Your task to perform on an android device: turn on translation in the chrome app Image 0: 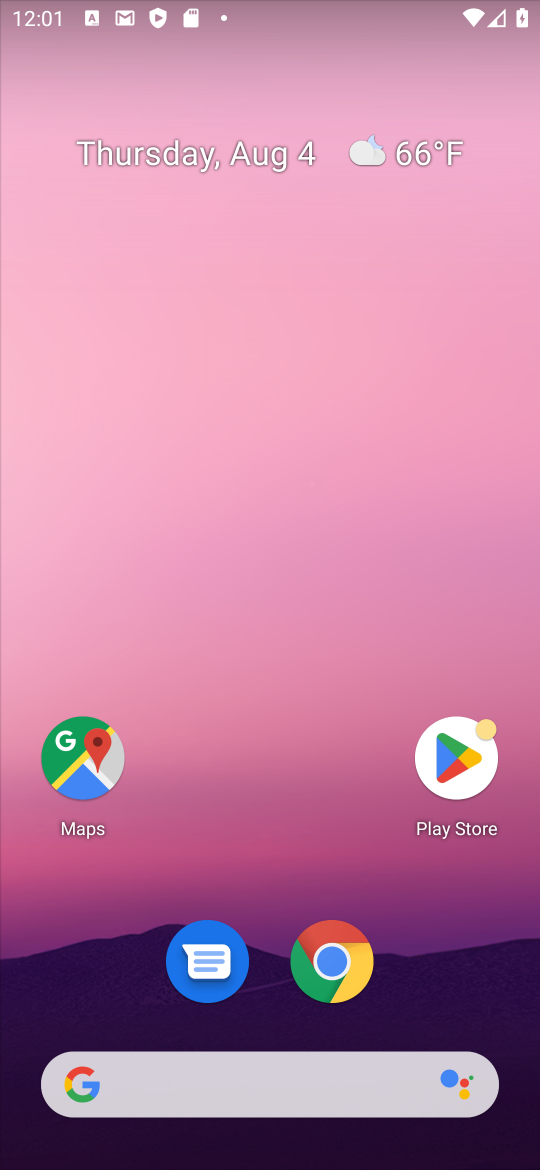
Step 0: click (337, 952)
Your task to perform on an android device: turn on translation in the chrome app Image 1: 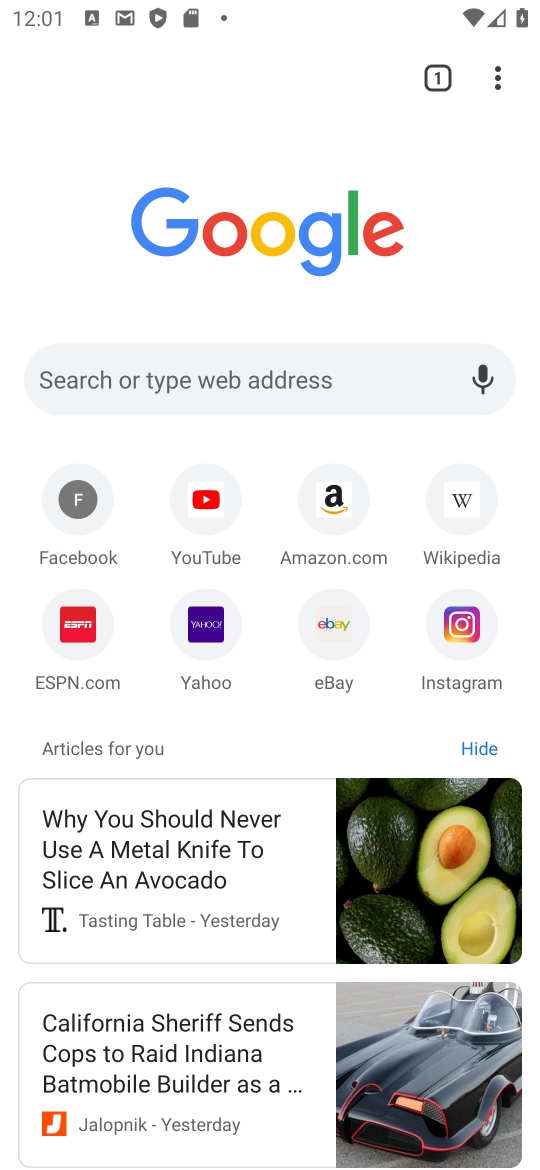
Step 1: click (498, 84)
Your task to perform on an android device: turn on translation in the chrome app Image 2: 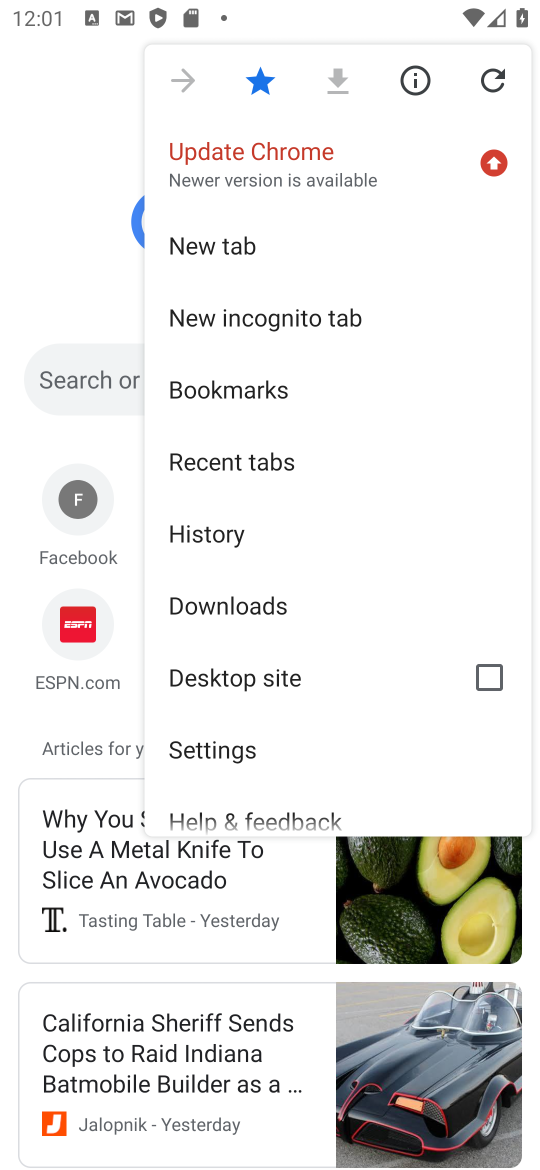
Step 2: click (240, 736)
Your task to perform on an android device: turn on translation in the chrome app Image 3: 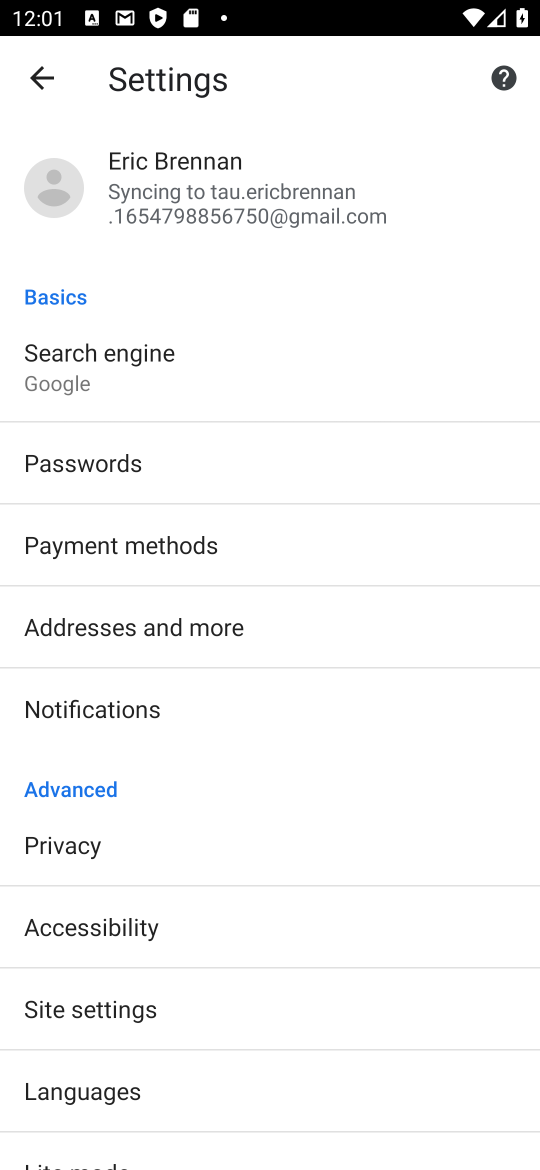
Step 3: click (212, 1089)
Your task to perform on an android device: turn on translation in the chrome app Image 4: 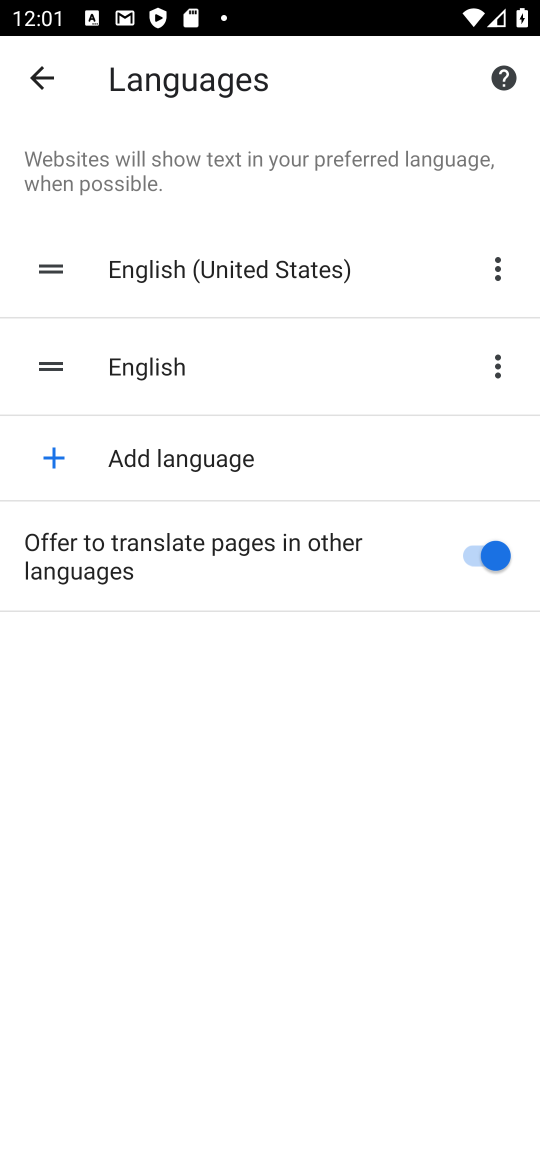
Step 4: task complete